Your task to perform on an android device: check the backup settings in the google photos Image 0: 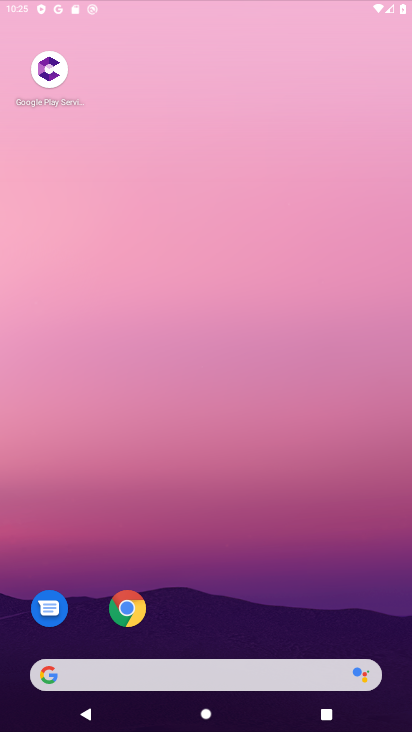
Step 0: click (229, 139)
Your task to perform on an android device: check the backup settings in the google photos Image 1: 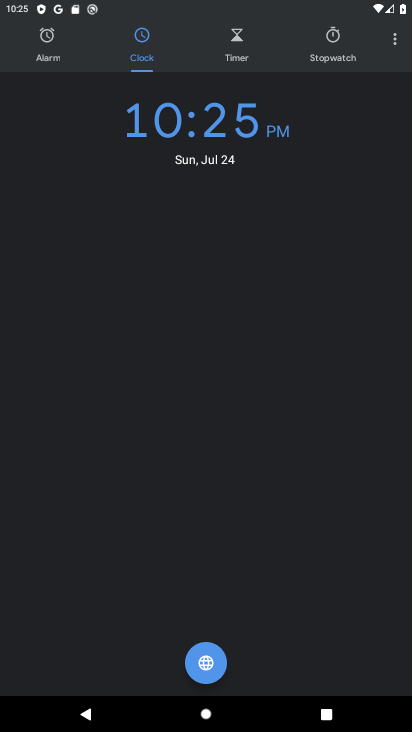
Step 1: press home button
Your task to perform on an android device: check the backup settings in the google photos Image 2: 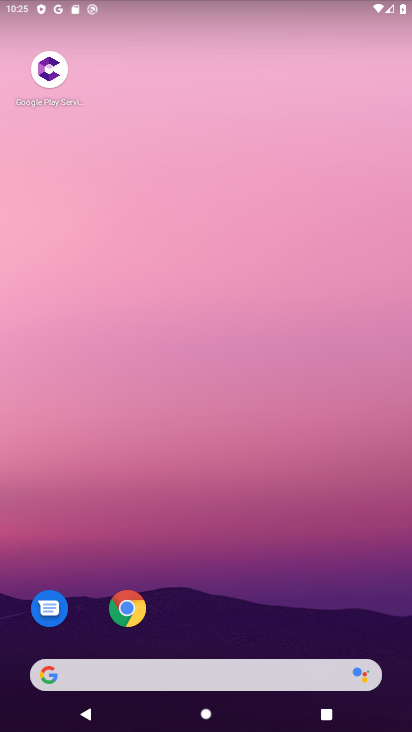
Step 2: drag from (236, 600) to (307, 116)
Your task to perform on an android device: check the backup settings in the google photos Image 3: 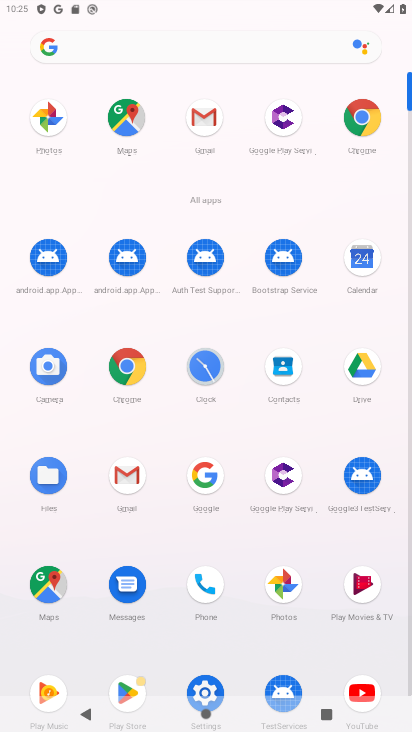
Step 3: click (280, 583)
Your task to perform on an android device: check the backup settings in the google photos Image 4: 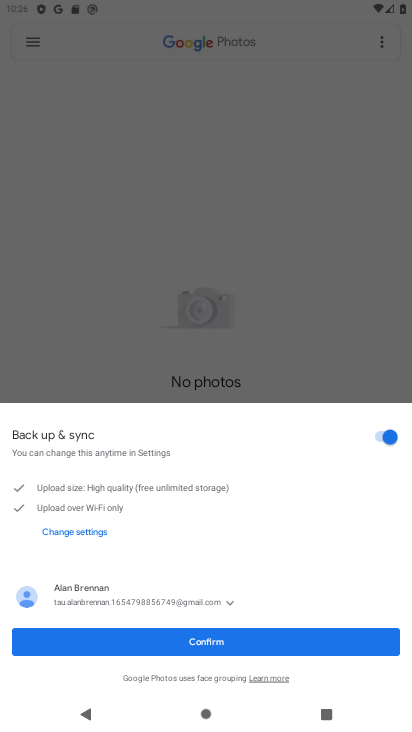
Step 4: click (192, 642)
Your task to perform on an android device: check the backup settings in the google photos Image 5: 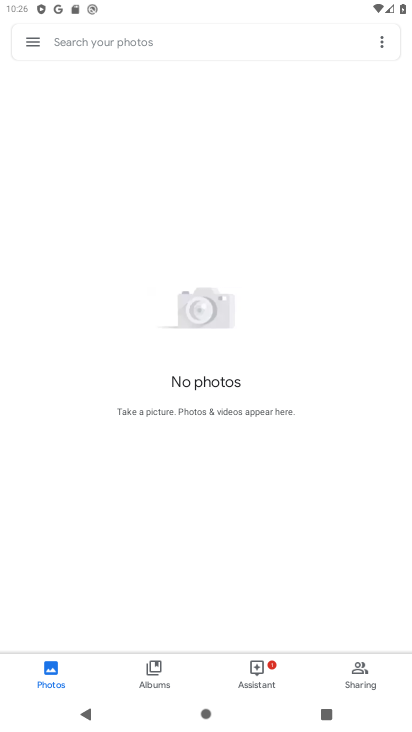
Step 5: click (34, 39)
Your task to perform on an android device: check the backup settings in the google photos Image 6: 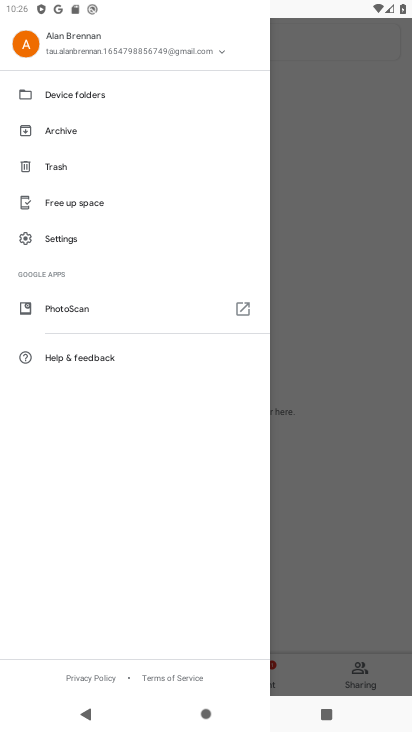
Step 6: click (72, 232)
Your task to perform on an android device: check the backup settings in the google photos Image 7: 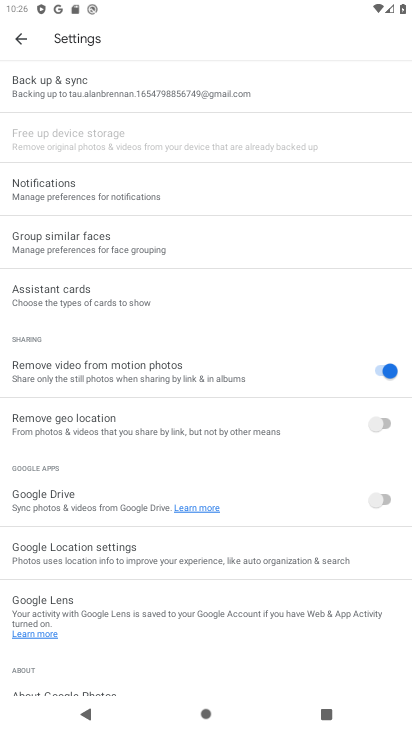
Step 7: task complete